Your task to perform on an android device: Open Yahoo.com Image 0: 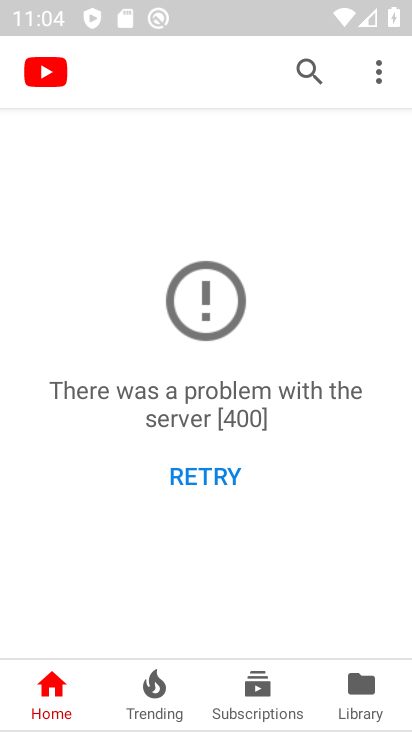
Step 0: press home button
Your task to perform on an android device: Open Yahoo.com Image 1: 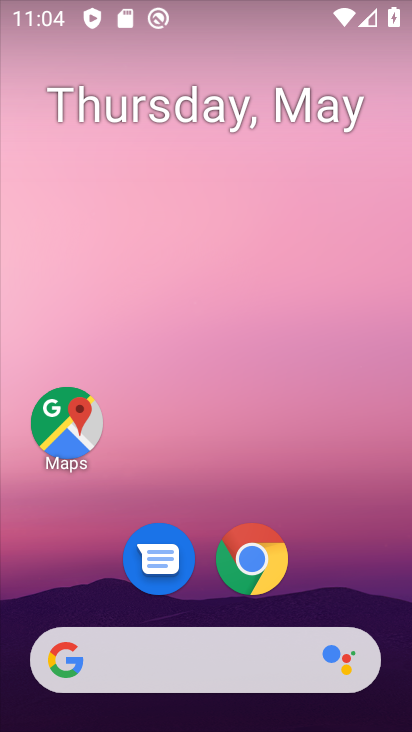
Step 1: click (251, 560)
Your task to perform on an android device: Open Yahoo.com Image 2: 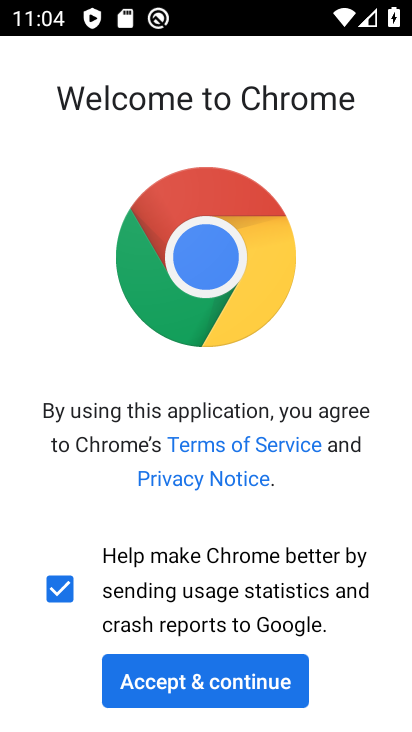
Step 2: click (196, 680)
Your task to perform on an android device: Open Yahoo.com Image 3: 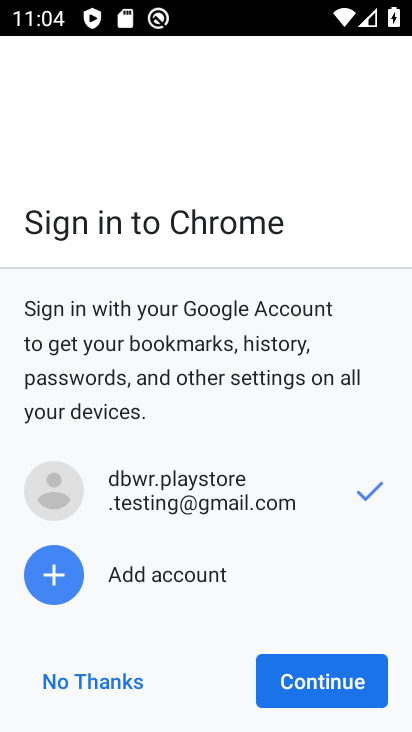
Step 3: click (307, 681)
Your task to perform on an android device: Open Yahoo.com Image 4: 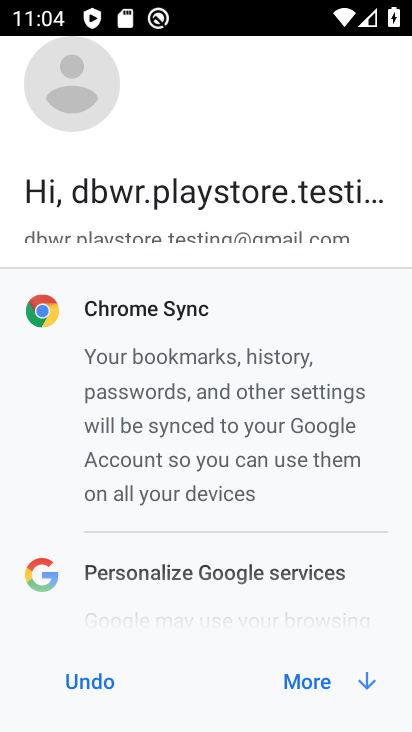
Step 4: click (307, 681)
Your task to perform on an android device: Open Yahoo.com Image 5: 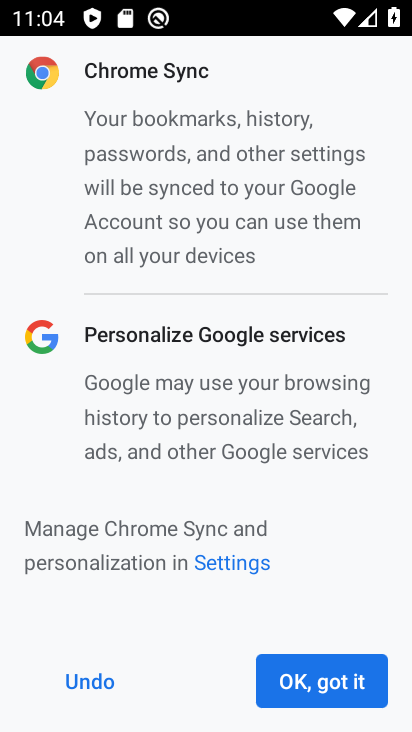
Step 5: click (307, 681)
Your task to perform on an android device: Open Yahoo.com Image 6: 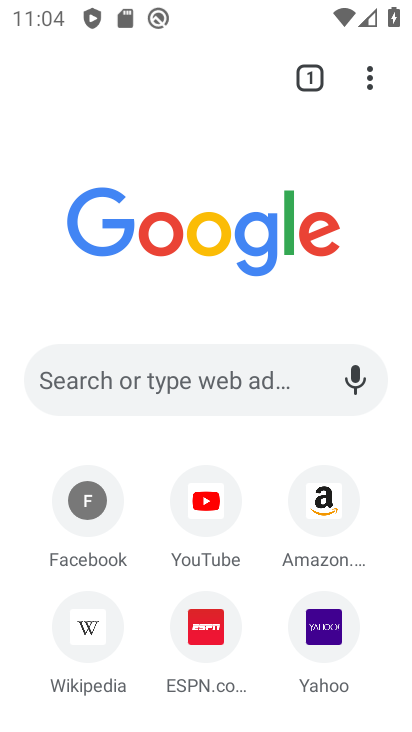
Step 6: click (185, 373)
Your task to perform on an android device: Open Yahoo.com Image 7: 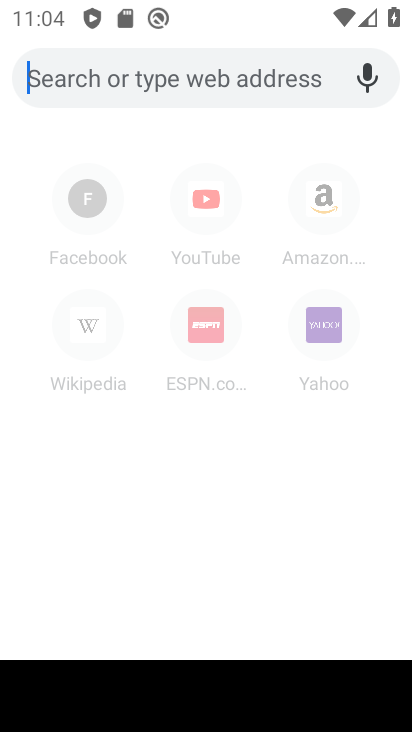
Step 7: type "Yahoo.com"
Your task to perform on an android device: Open Yahoo.com Image 8: 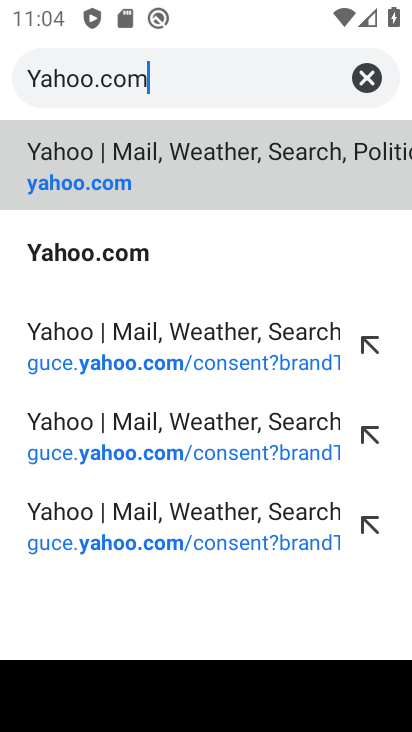
Step 8: click (109, 160)
Your task to perform on an android device: Open Yahoo.com Image 9: 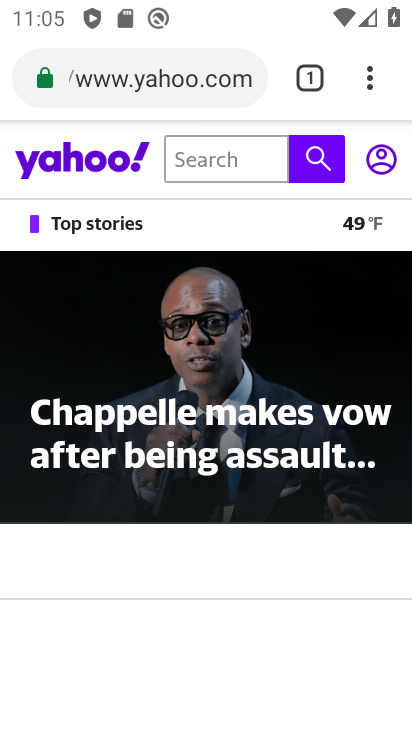
Step 9: task complete